Your task to perform on an android device: turn off translation in the chrome app Image 0: 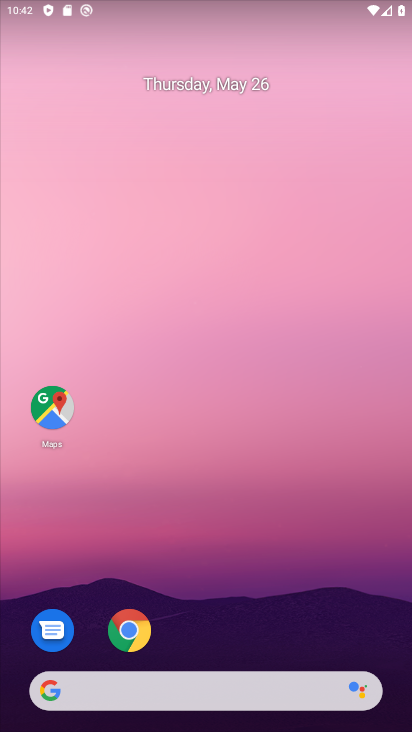
Step 0: click (129, 631)
Your task to perform on an android device: turn off translation in the chrome app Image 1: 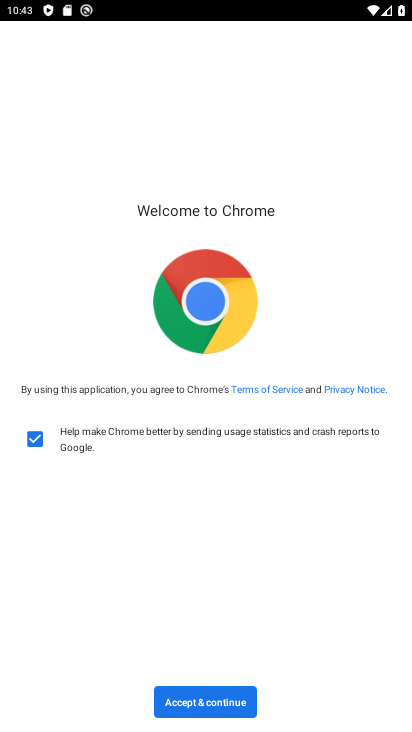
Step 1: click (205, 700)
Your task to perform on an android device: turn off translation in the chrome app Image 2: 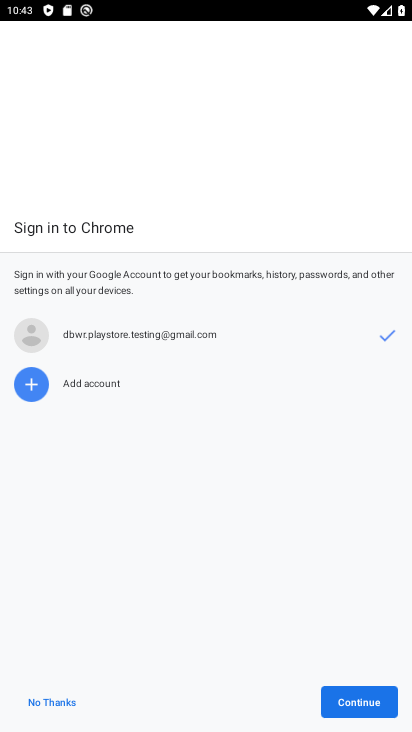
Step 2: click (343, 702)
Your task to perform on an android device: turn off translation in the chrome app Image 3: 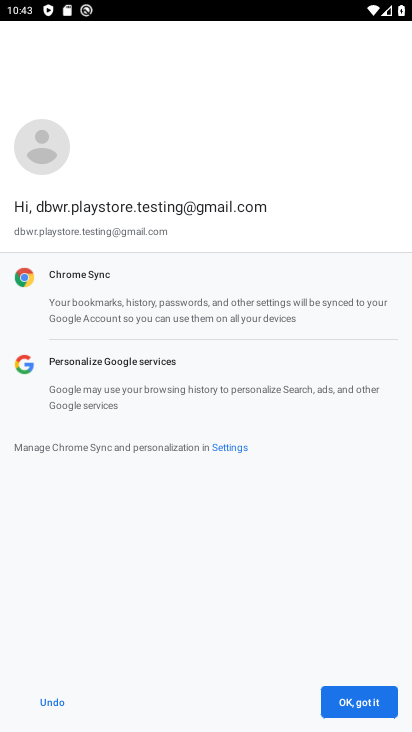
Step 3: click (356, 706)
Your task to perform on an android device: turn off translation in the chrome app Image 4: 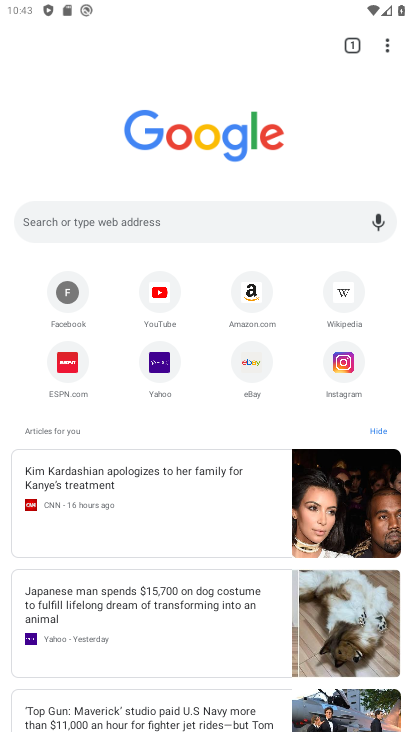
Step 4: click (386, 44)
Your task to perform on an android device: turn off translation in the chrome app Image 5: 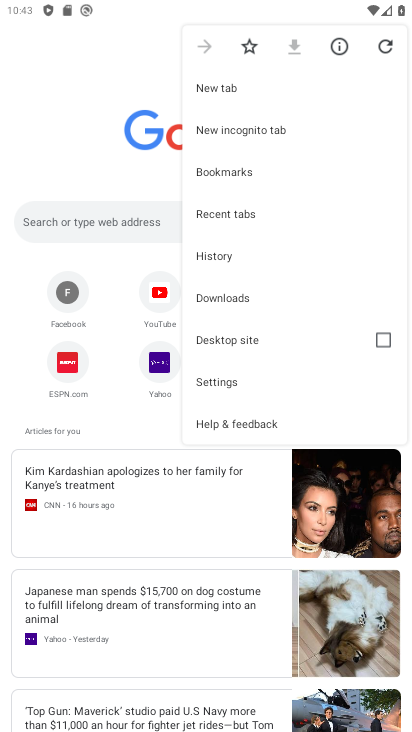
Step 5: click (230, 379)
Your task to perform on an android device: turn off translation in the chrome app Image 6: 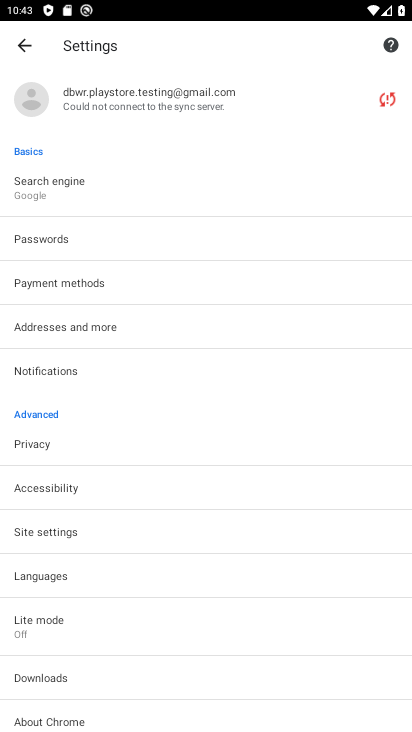
Step 6: click (52, 578)
Your task to perform on an android device: turn off translation in the chrome app Image 7: 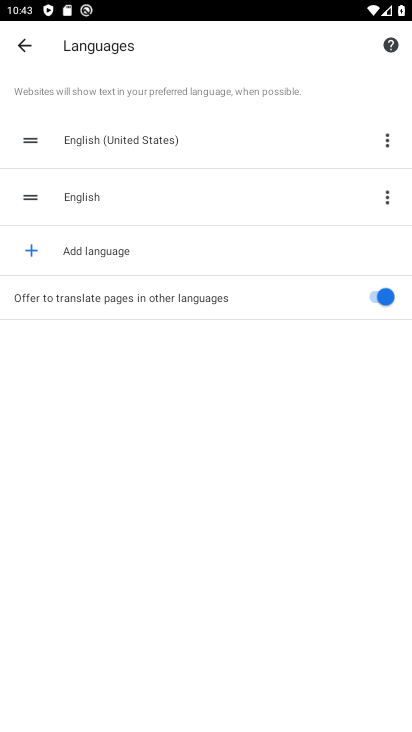
Step 7: click (377, 298)
Your task to perform on an android device: turn off translation in the chrome app Image 8: 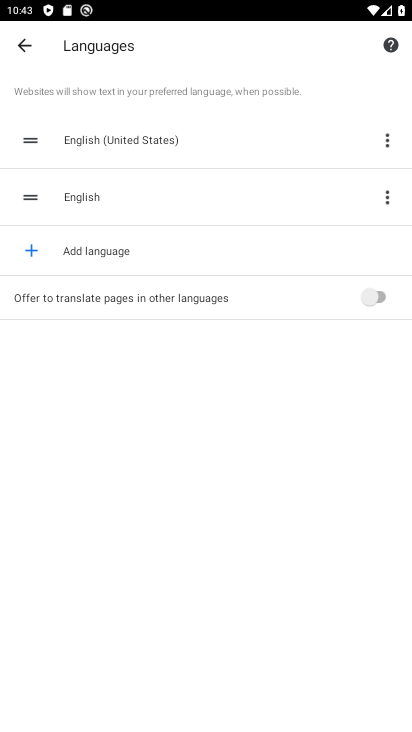
Step 8: task complete